Your task to perform on an android device: Go to wifi settings Image 0: 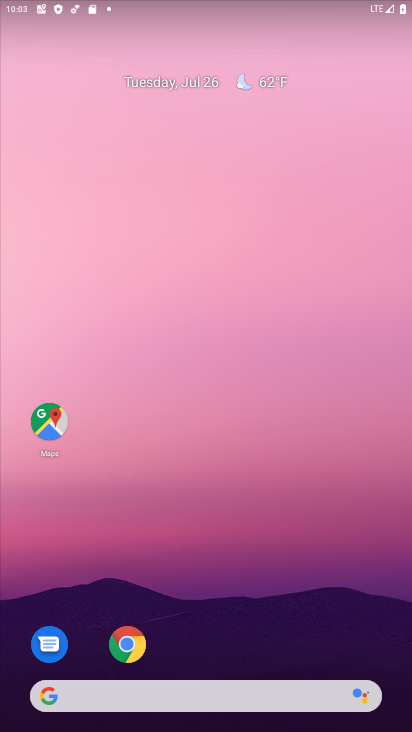
Step 0: drag from (284, 626) to (252, 13)
Your task to perform on an android device: Go to wifi settings Image 1: 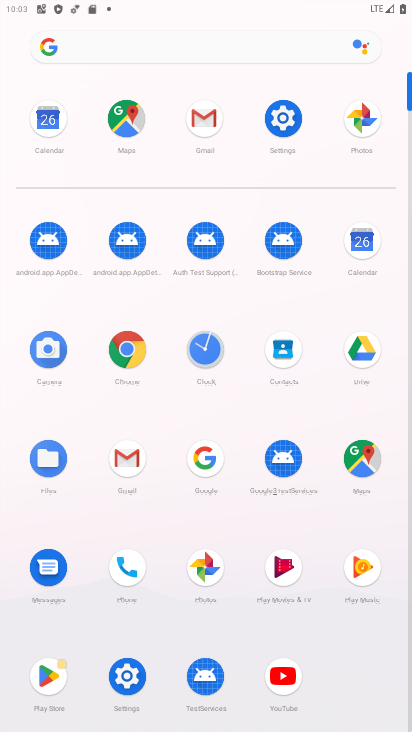
Step 1: click (282, 117)
Your task to perform on an android device: Go to wifi settings Image 2: 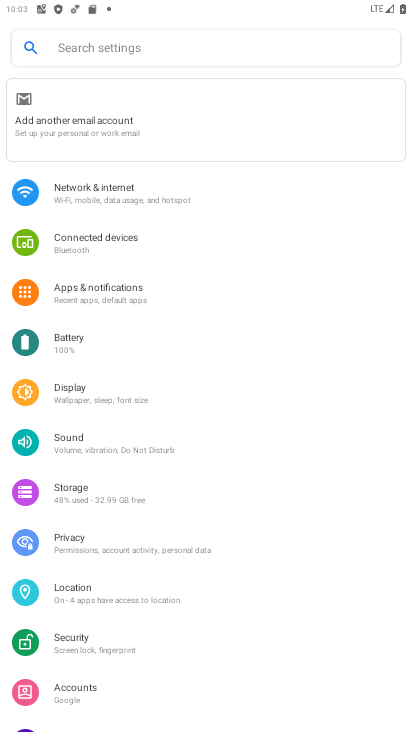
Step 2: click (68, 196)
Your task to perform on an android device: Go to wifi settings Image 3: 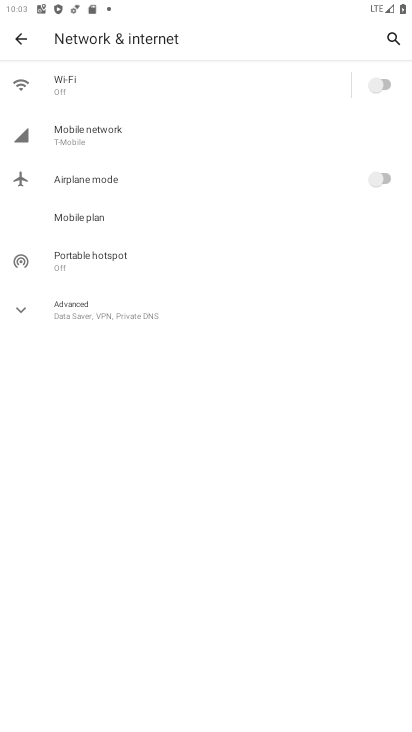
Step 3: click (37, 87)
Your task to perform on an android device: Go to wifi settings Image 4: 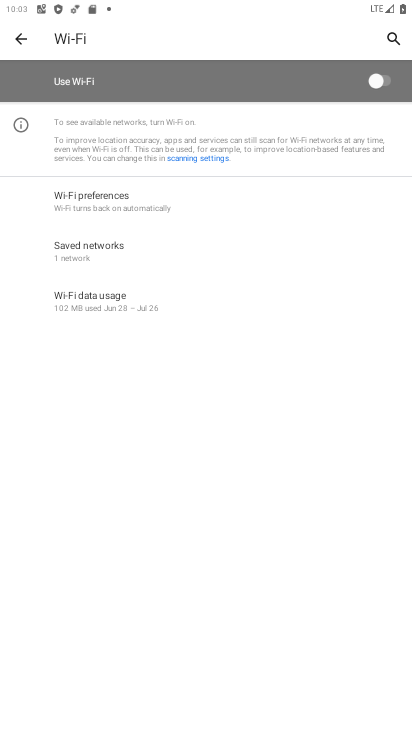
Step 4: task complete